Your task to perform on an android device: open app "LiveIn - Share Your Moment" (install if not already installed) and enter user name: "certifies@gmail.com" and password: "compartmented" Image 0: 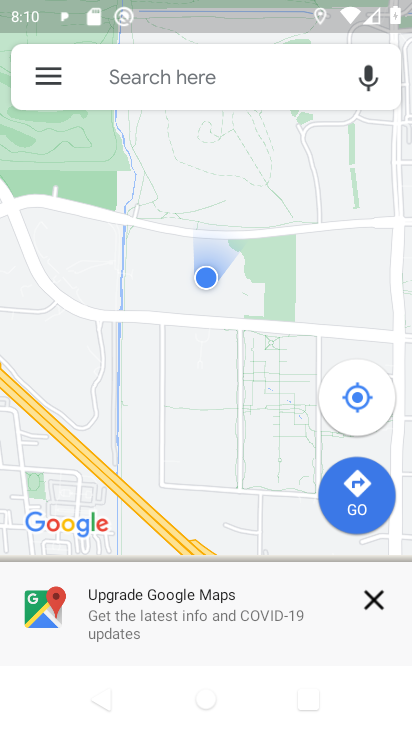
Step 0: press home button
Your task to perform on an android device: open app "LiveIn - Share Your Moment" (install if not already installed) and enter user name: "certifies@gmail.com" and password: "compartmented" Image 1: 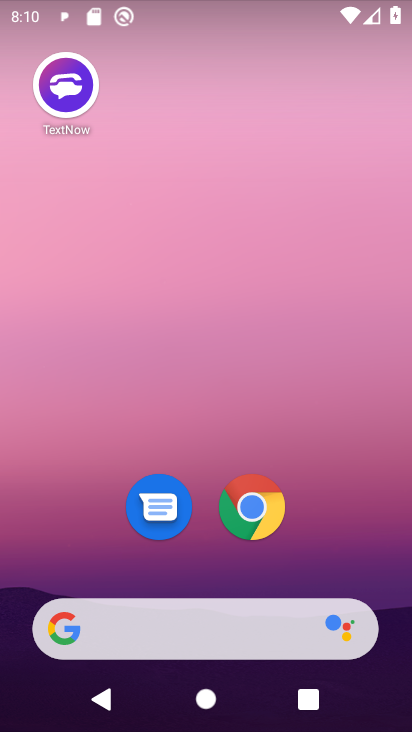
Step 1: drag from (357, 556) to (375, 77)
Your task to perform on an android device: open app "LiveIn - Share Your Moment" (install if not already installed) and enter user name: "certifies@gmail.com" and password: "compartmented" Image 2: 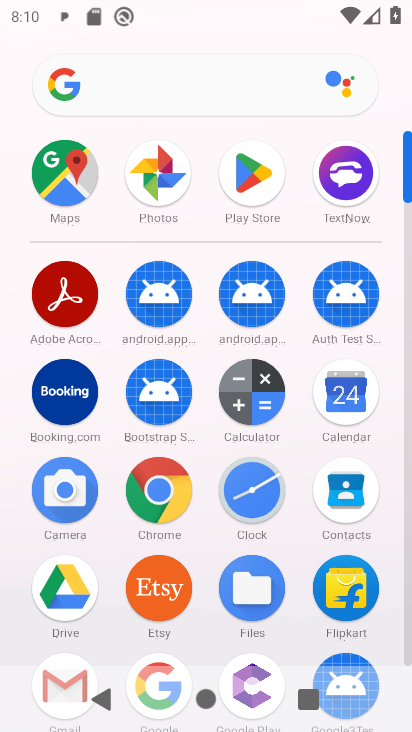
Step 2: click (253, 181)
Your task to perform on an android device: open app "LiveIn - Share Your Moment" (install if not already installed) and enter user name: "certifies@gmail.com" and password: "compartmented" Image 3: 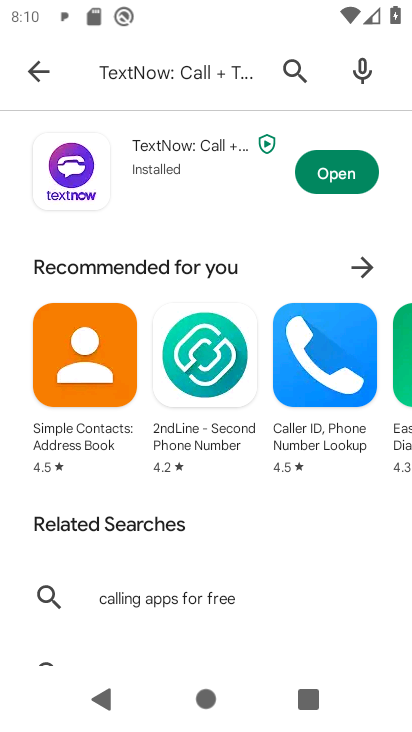
Step 3: press back button
Your task to perform on an android device: open app "LiveIn - Share Your Moment" (install if not already installed) and enter user name: "certifies@gmail.com" and password: "compartmented" Image 4: 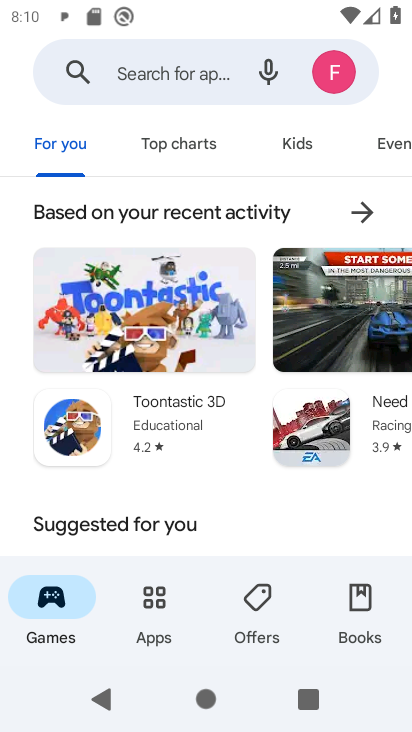
Step 4: click (183, 70)
Your task to perform on an android device: open app "LiveIn - Share Your Moment" (install if not already installed) and enter user name: "certifies@gmail.com" and password: "compartmented" Image 5: 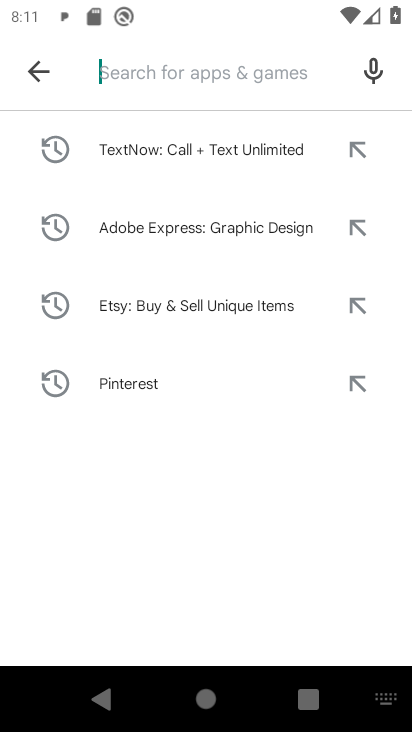
Step 5: type "LiveIn - Share Your Moment"
Your task to perform on an android device: open app "LiveIn - Share Your Moment" (install if not already installed) and enter user name: "certifies@gmail.com" and password: "compartmented" Image 6: 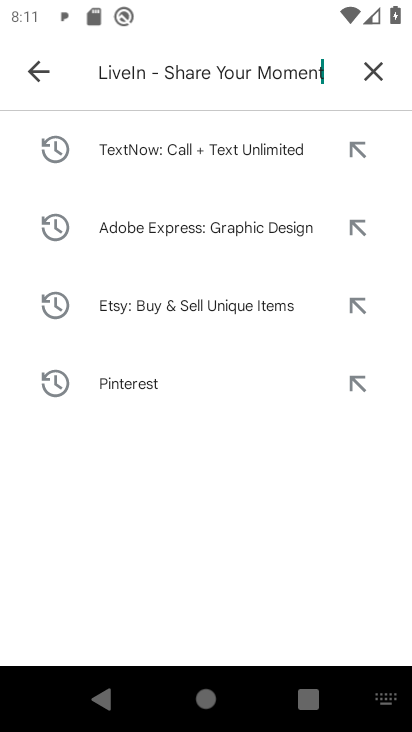
Step 6: press enter
Your task to perform on an android device: open app "LiveIn - Share Your Moment" (install if not already installed) and enter user name: "certifies@gmail.com" and password: "compartmented" Image 7: 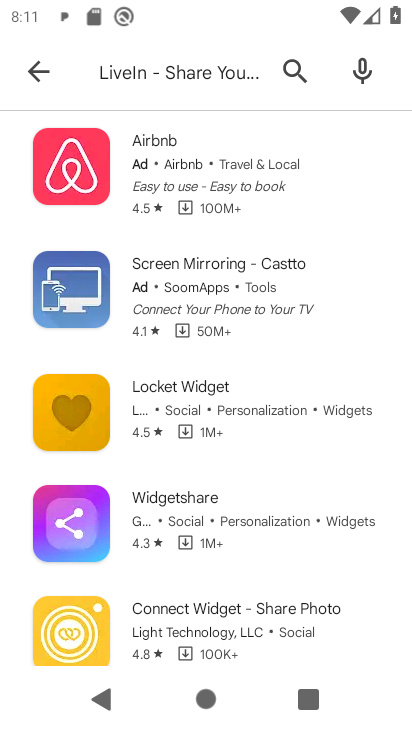
Step 7: task complete